Your task to perform on an android device: open a new tab in the chrome app Image 0: 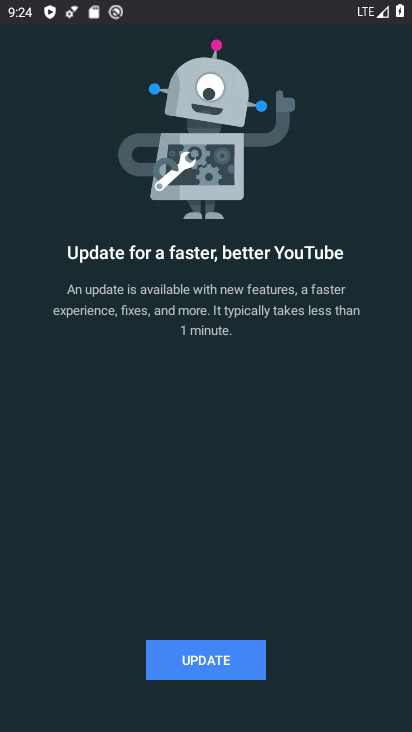
Step 0: press home button
Your task to perform on an android device: open a new tab in the chrome app Image 1: 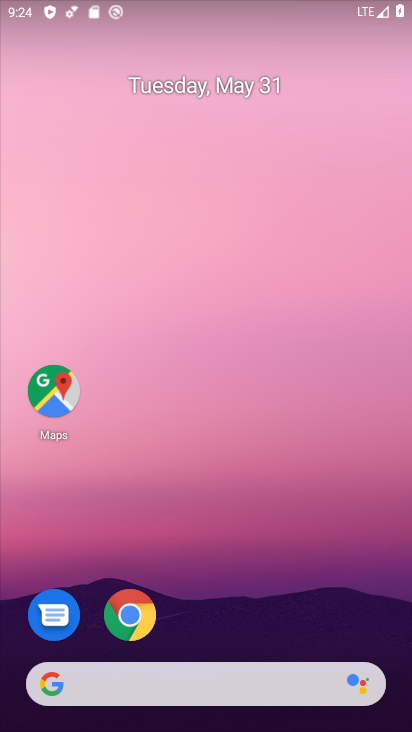
Step 1: drag from (311, 478) to (332, 51)
Your task to perform on an android device: open a new tab in the chrome app Image 2: 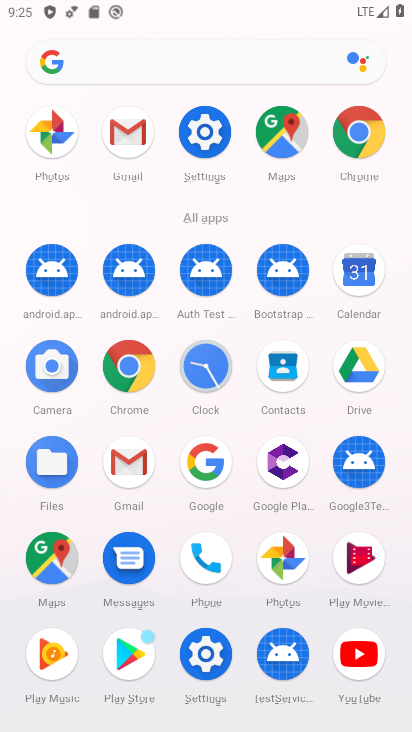
Step 2: click (352, 135)
Your task to perform on an android device: open a new tab in the chrome app Image 3: 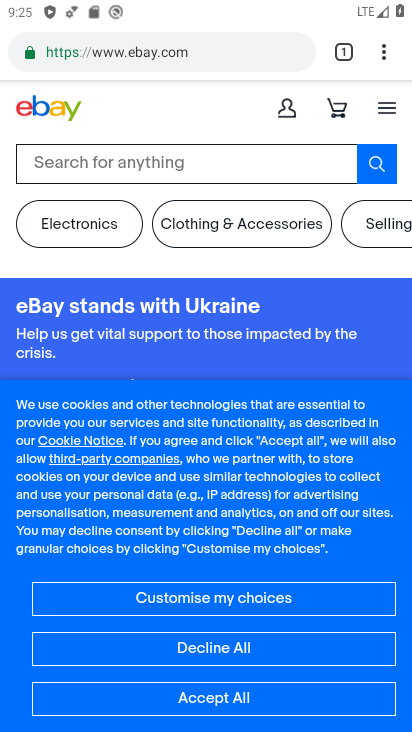
Step 3: task complete